Your task to perform on an android device: clear history in the chrome app Image 0: 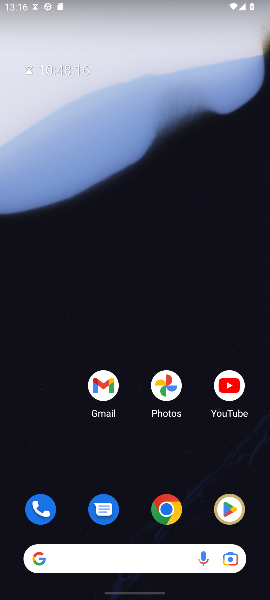
Step 0: press home button
Your task to perform on an android device: clear history in the chrome app Image 1: 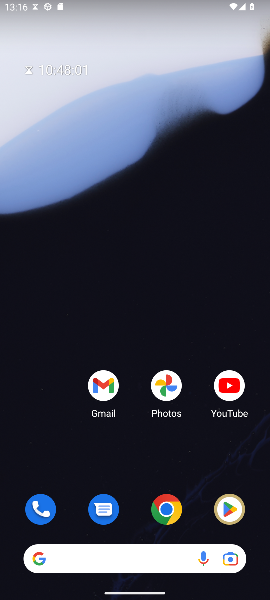
Step 1: click (160, 515)
Your task to perform on an android device: clear history in the chrome app Image 2: 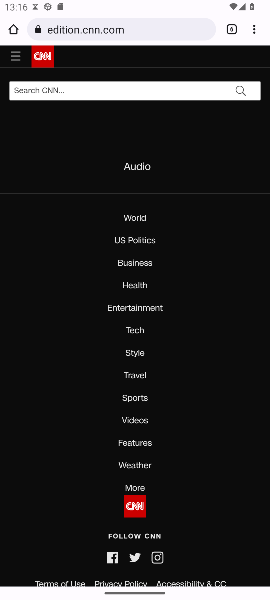
Step 2: drag from (256, 28) to (165, 119)
Your task to perform on an android device: clear history in the chrome app Image 3: 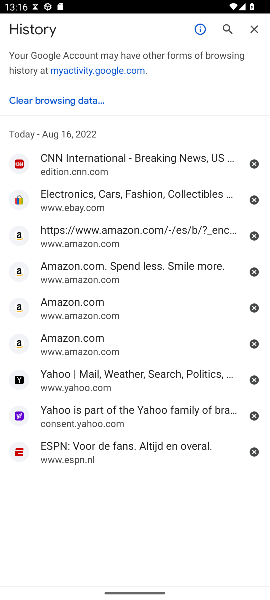
Step 3: click (71, 101)
Your task to perform on an android device: clear history in the chrome app Image 4: 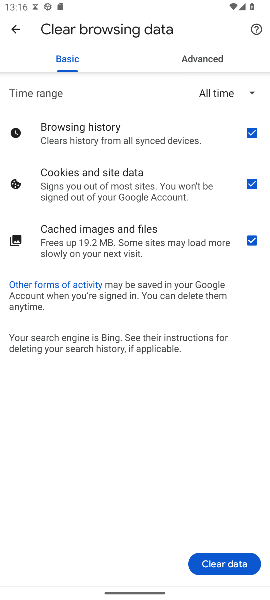
Step 4: click (249, 183)
Your task to perform on an android device: clear history in the chrome app Image 5: 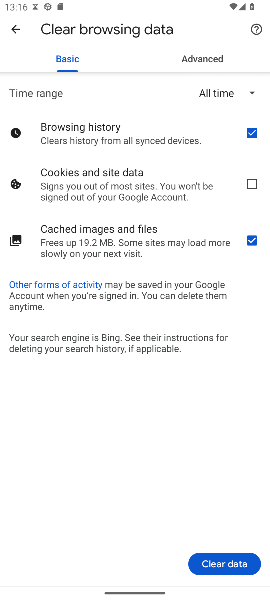
Step 5: click (255, 238)
Your task to perform on an android device: clear history in the chrome app Image 6: 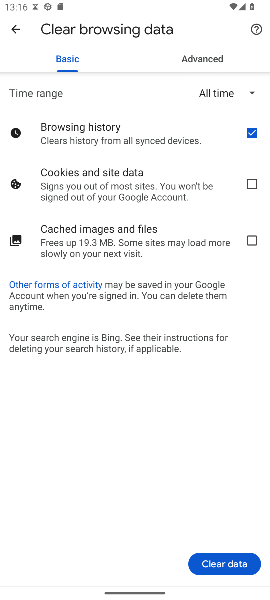
Step 6: click (215, 566)
Your task to perform on an android device: clear history in the chrome app Image 7: 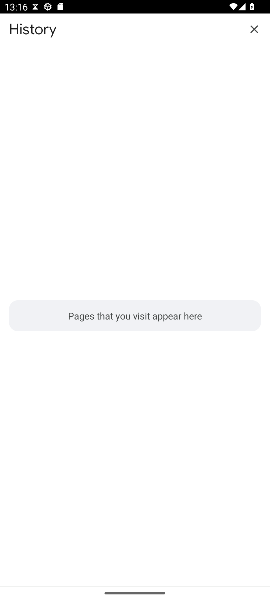
Step 7: task complete